Your task to perform on an android device: Show me recent news Image 0: 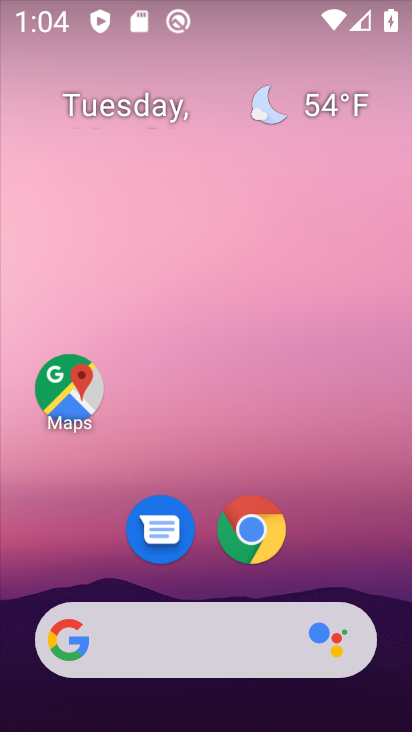
Step 0: drag from (340, 536) to (244, 81)
Your task to perform on an android device: Show me recent news Image 1: 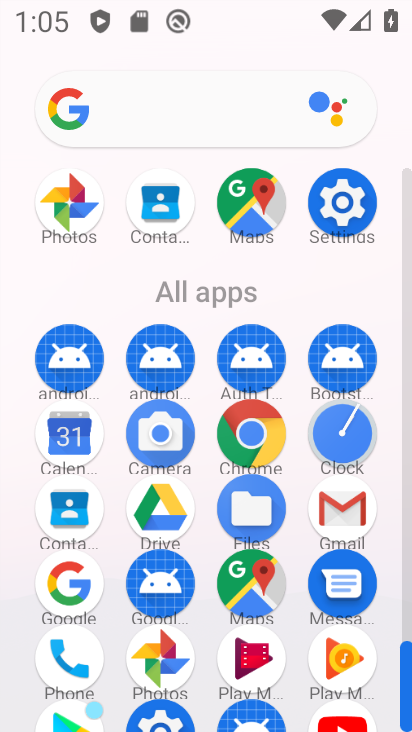
Step 1: click (66, 583)
Your task to perform on an android device: Show me recent news Image 2: 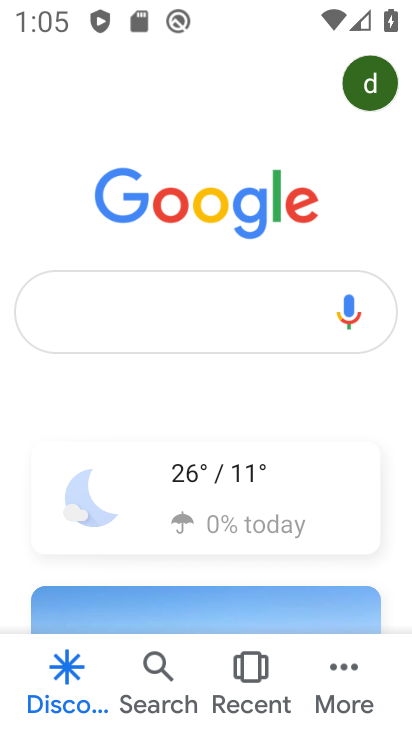
Step 2: click (179, 303)
Your task to perform on an android device: Show me recent news Image 3: 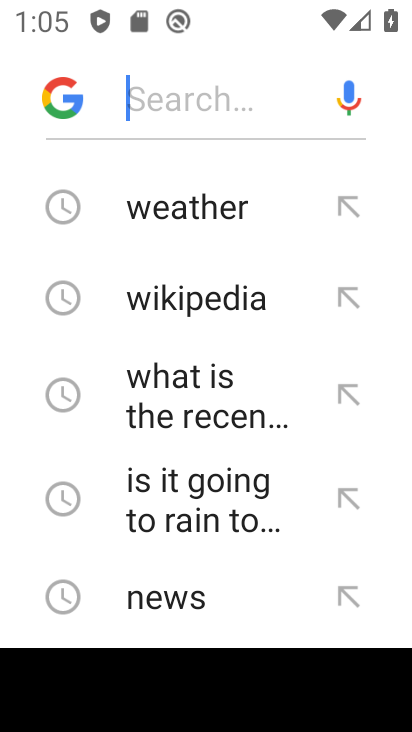
Step 3: type "recent news"
Your task to perform on an android device: Show me recent news Image 4: 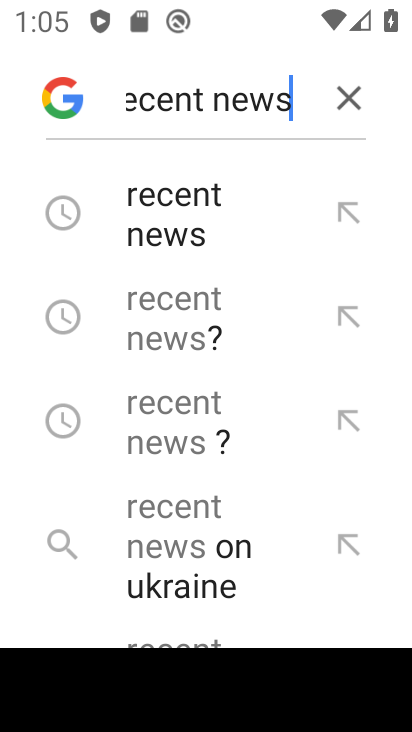
Step 4: click (143, 212)
Your task to perform on an android device: Show me recent news Image 5: 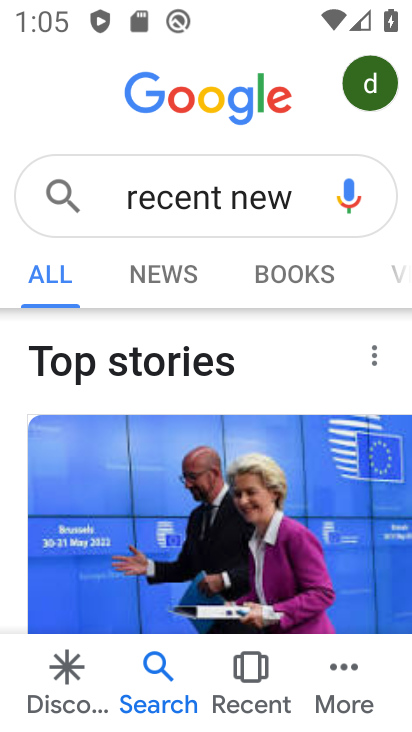
Step 5: drag from (191, 540) to (278, 329)
Your task to perform on an android device: Show me recent news Image 6: 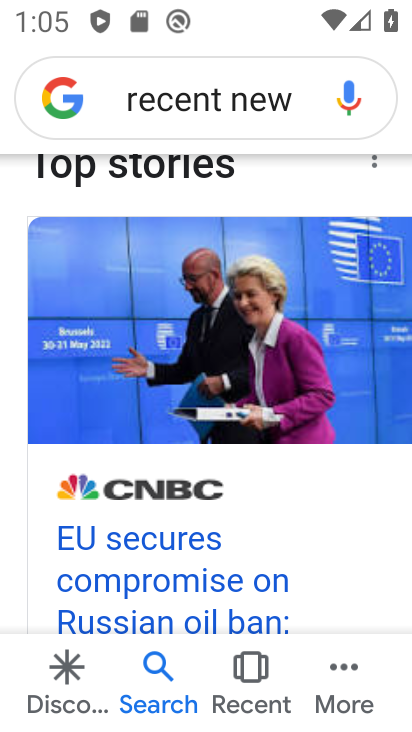
Step 6: click (163, 591)
Your task to perform on an android device: Show me recent news Image 7: 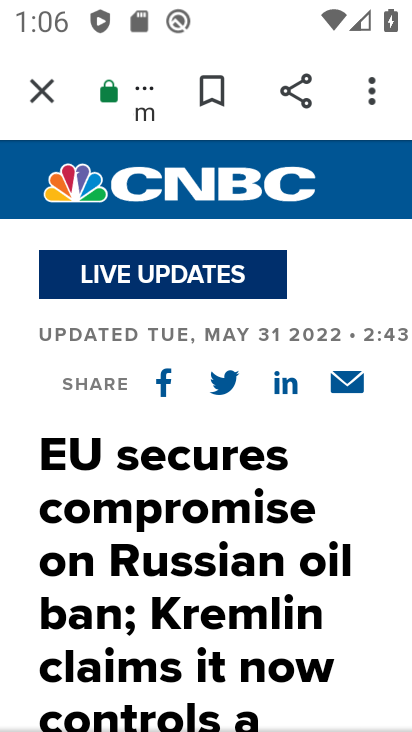
Step 7: task complete